Your task to perform on an android device: set the stopwatch Image 0: 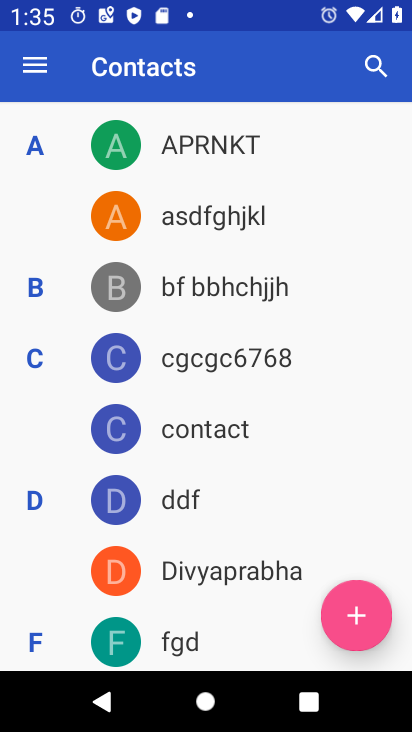
Step 0: press home button
Your task to perform on an android device: set the stopwatch Image 1: 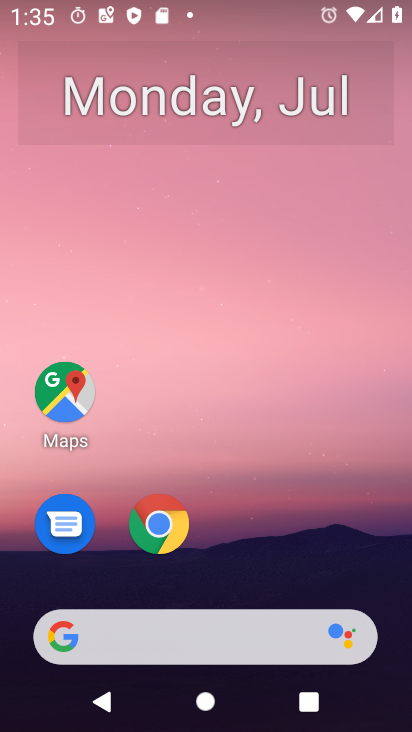
Step 1: drag from (302, 507) to (409, 179)
Your task to perform on an android device: set the stopwatch Image 2: 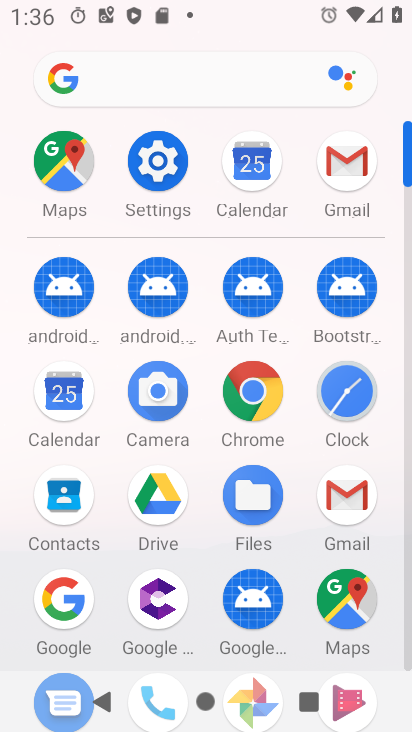
Step 2: click (363, 399)
Your task to perform on an android device: set the stopwatch Image 3: 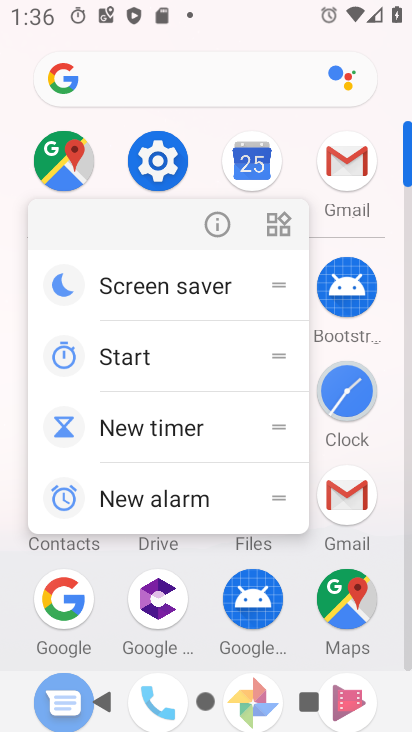
Step 3: click (363, 399)
Your task to perform on an android device: set the stopwatch Image 4: 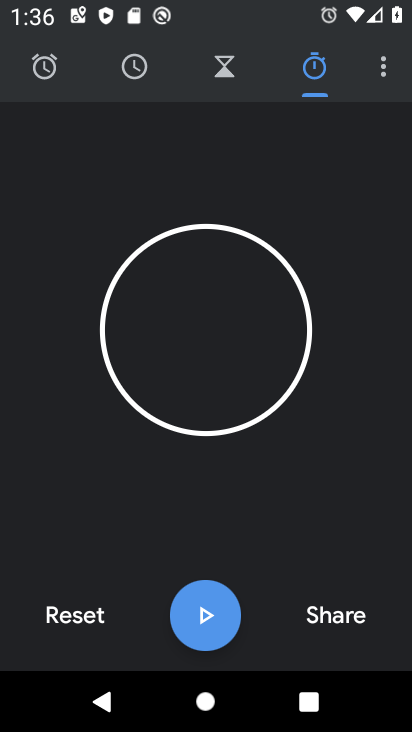
Step 4: click (196, 618)
Your task to perform on an android device: set the stopwatch Image 5: 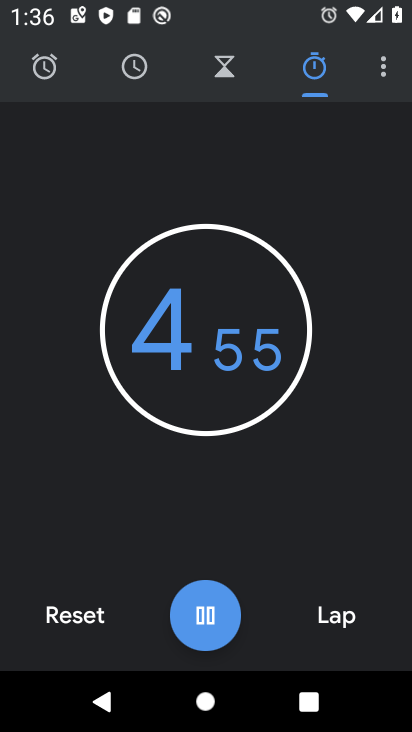
Step 5: click (178, 600)
Your task to perform on an android device: set the stopwatch Image 6: 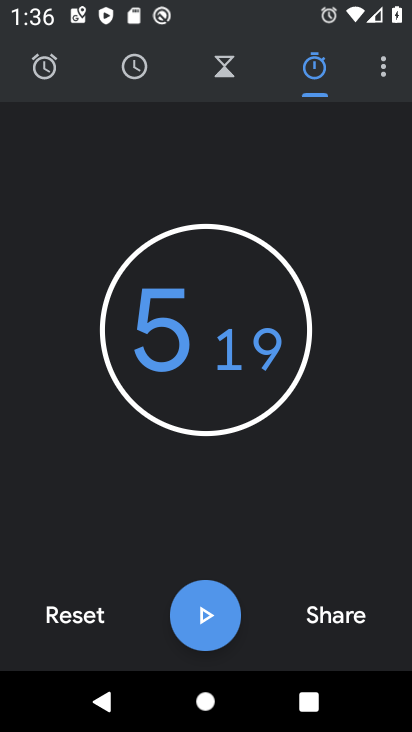
Step 6: task complete